Your task to perform on an android device: Open location settings Image 0: 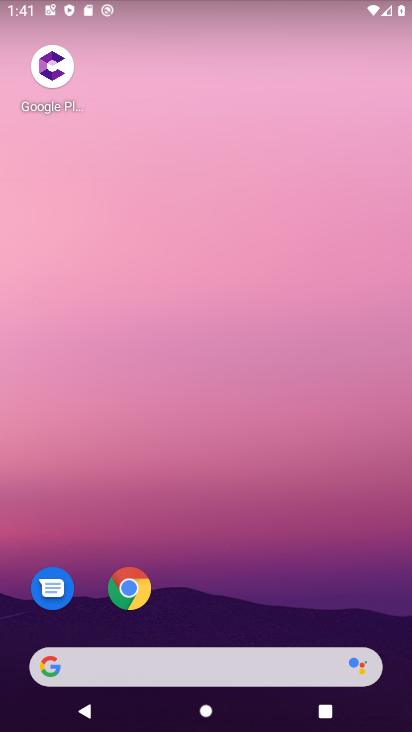
Step 0: drag from (207, 613) to (320, 158)
Your task to perform on an android device: Open location settings Image 1: 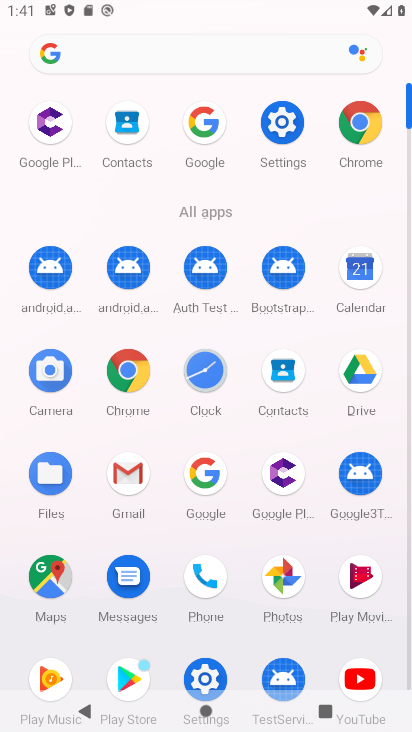
Step 1: click (280, 137)
Your task to perform on an android device: Open location settings Image 2: 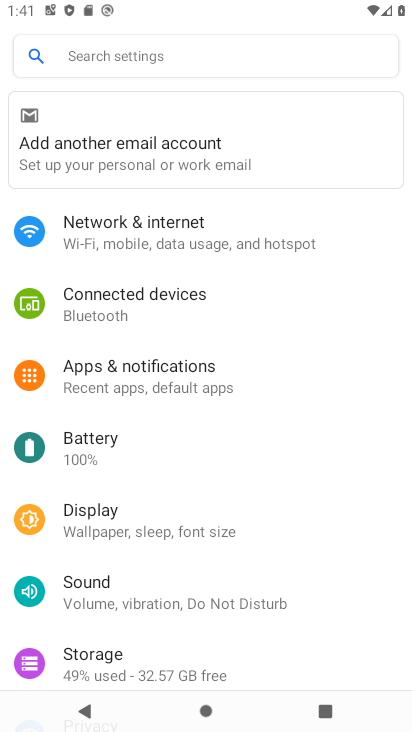
Step 2: drag from (180, 574) to (202, 398)
Your task to perform on an android device: Open location settings Image 3: 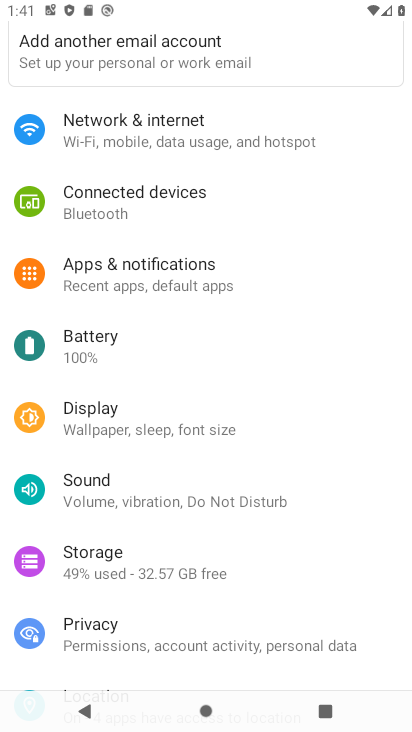
Step 3: drag from (206, 510) to (226, 372)
Your task to perform on an android device: Open location settings Image 4: 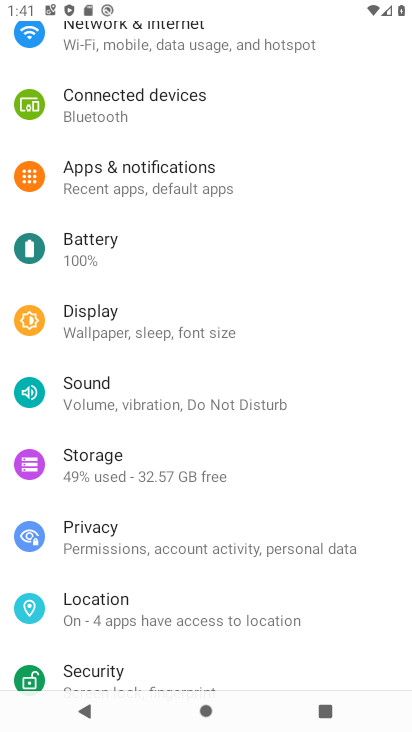
Step 4: click (186, 613)
Your task to perform on an android device: Open location settings Image 5: 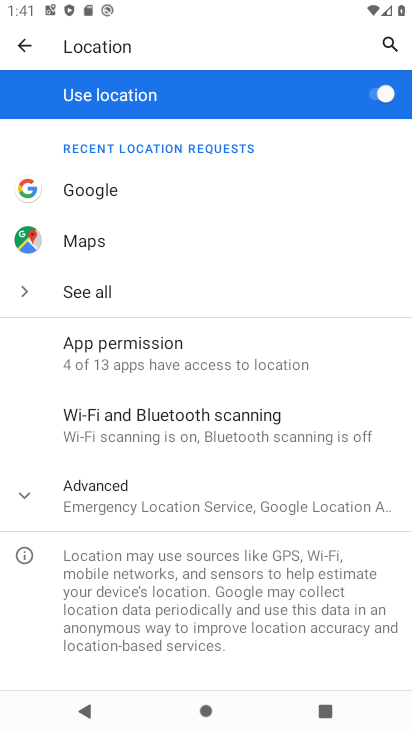
Step 5: task complete